Your task to perform on an android device: Open the phone app and click the voicemail tab. Image 0: 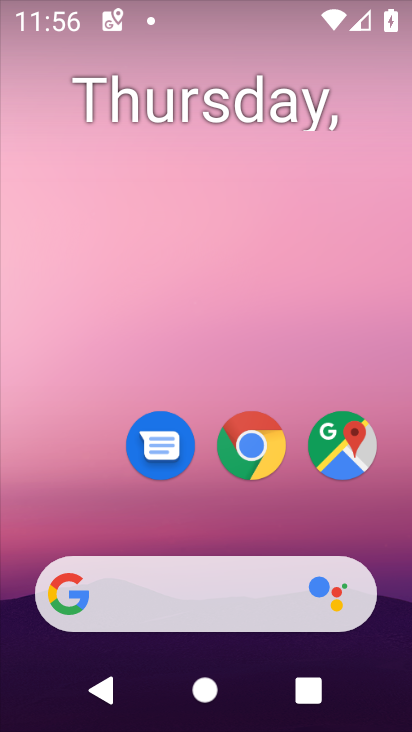
Step 0: drag from (235, 693) to (163, 116)
Your task to perform on an android device: Open the phone app and click the voicemail tab. Image 1: 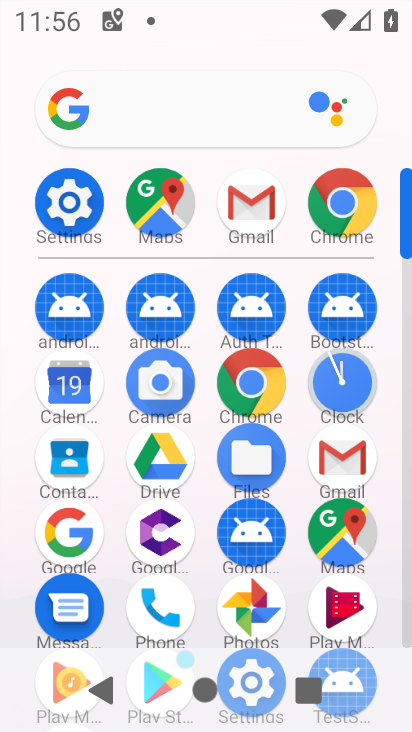
Step 1: click (150, 601)
Your task to perform on an android device: Open the phone app and click the voicemail tab. Image 2: 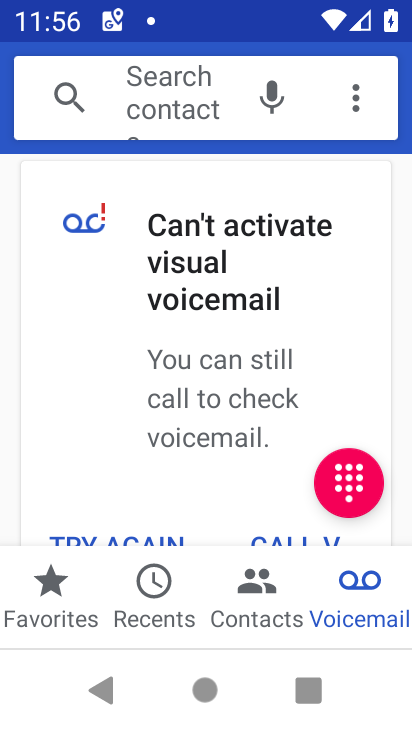
Step 2: click (336, 595)
Your task to perform on an android device: Open the phone app and click the voicemail tab. Image 3: 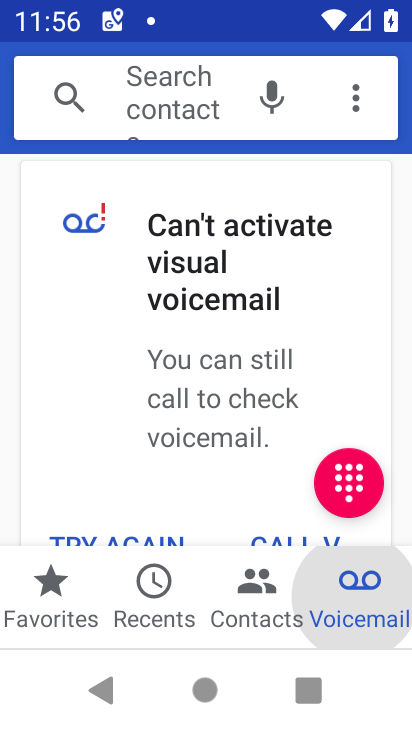
Step 3: click (337, 595)
Your task to perform on an android device: Open the phone app and click the voicemail tab. Image 4: 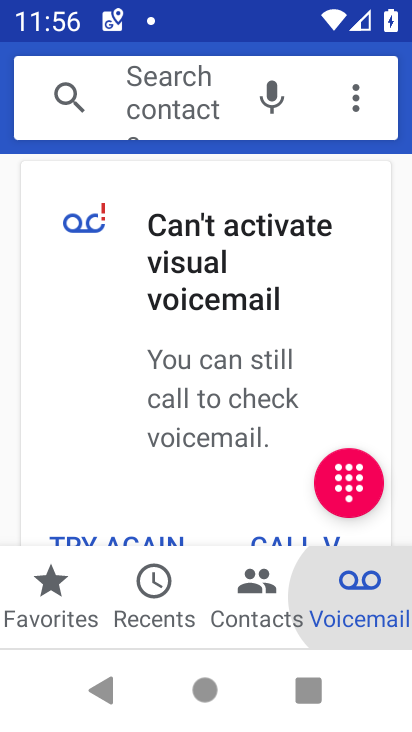
Step 4: click (361, 581)
Your task to perform on an android device: Open the phone app and click the voicemail tab. Image 5: 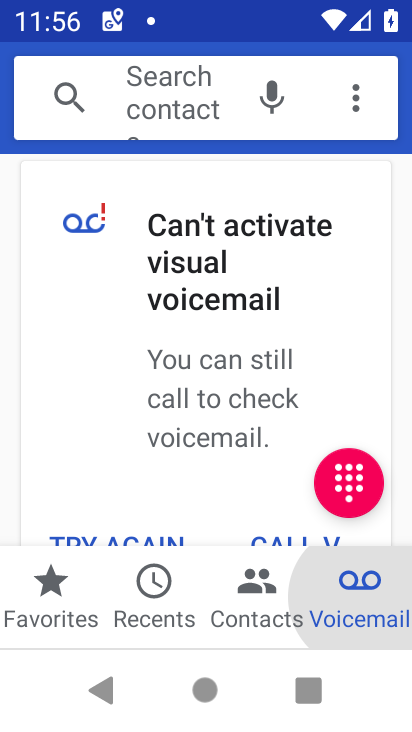
Step 5: click (361, 581)
Your task to perform on an android device: Open the phone app and click the voicemail tab. Image 6: 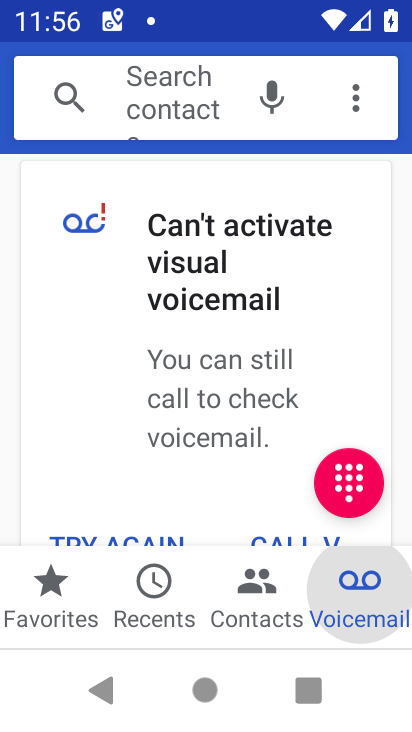
Step 6: click (361, 581)
Your task to perform on an android device: Open the phone app and click the voicemail tab. Image 7: 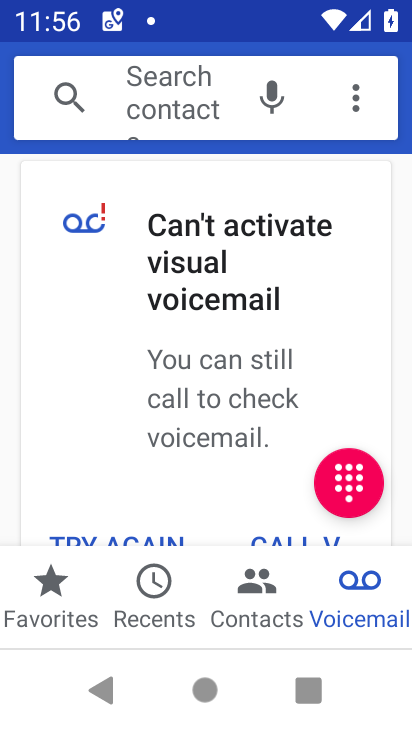
Step 7: click (372, 576)
Your task to perform on an android device: Open the phone app and click the voicemail tab. Image 8: 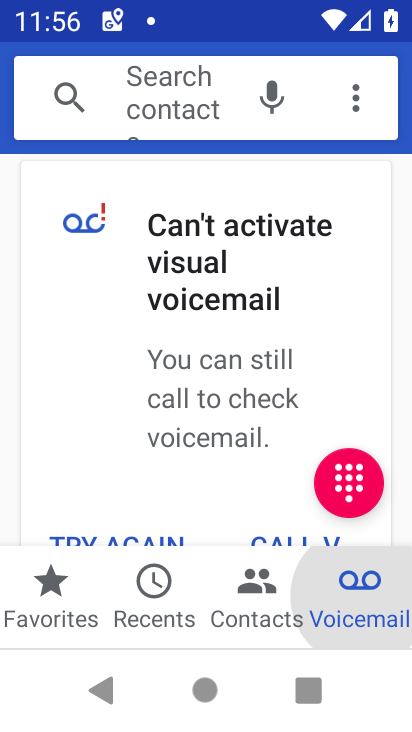
Step 8: click (372, 576)
Your task to perform on an android device: Open the phone app and click the voicemail tab. Image 9: 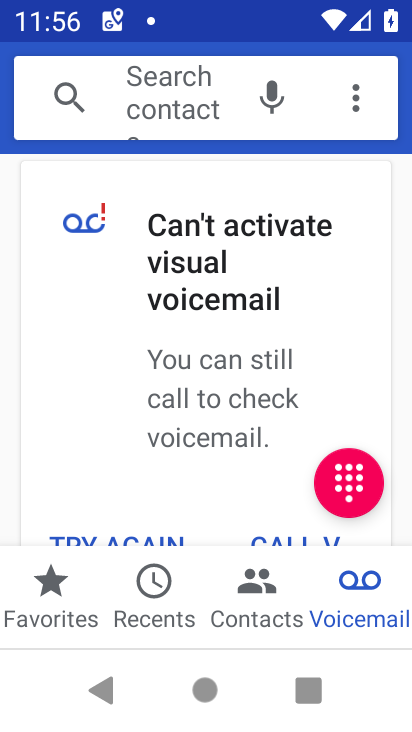
Step 9: task complete